Your task to perform on an android device: Open Google Maps Image 0: 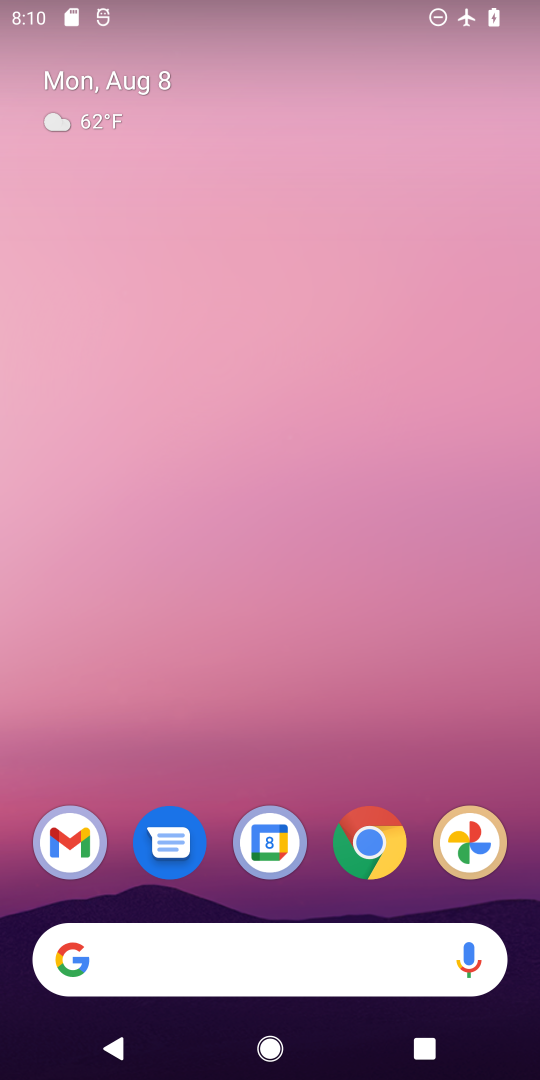
Step 0: drag from (331, 911) to (307, 200)
Your task to perform on an android device: Open Google Maps Image 1: 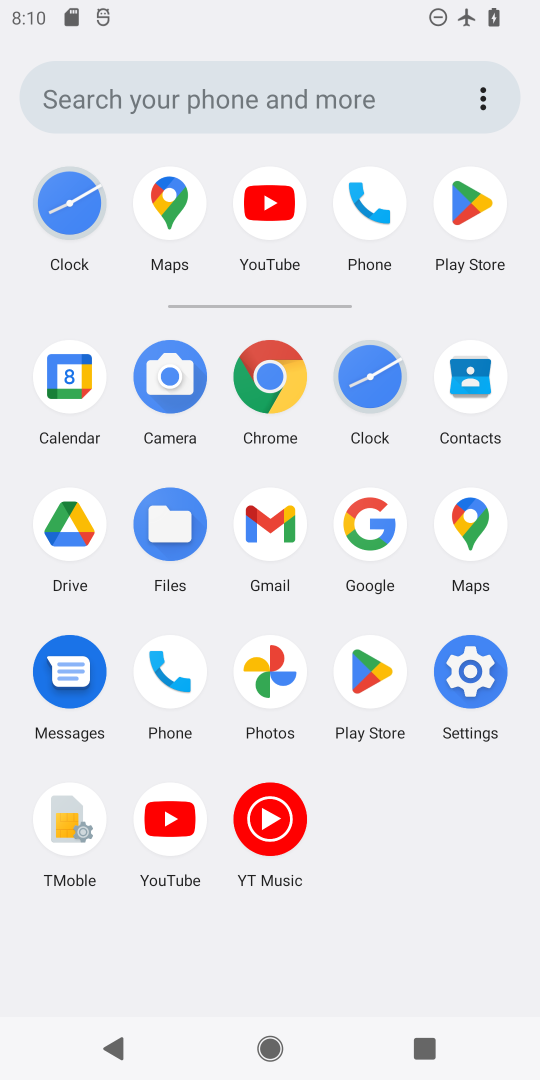
Step 1: click (480, 524)
Your task to perform on an android device: Open Google Maps Image 2: 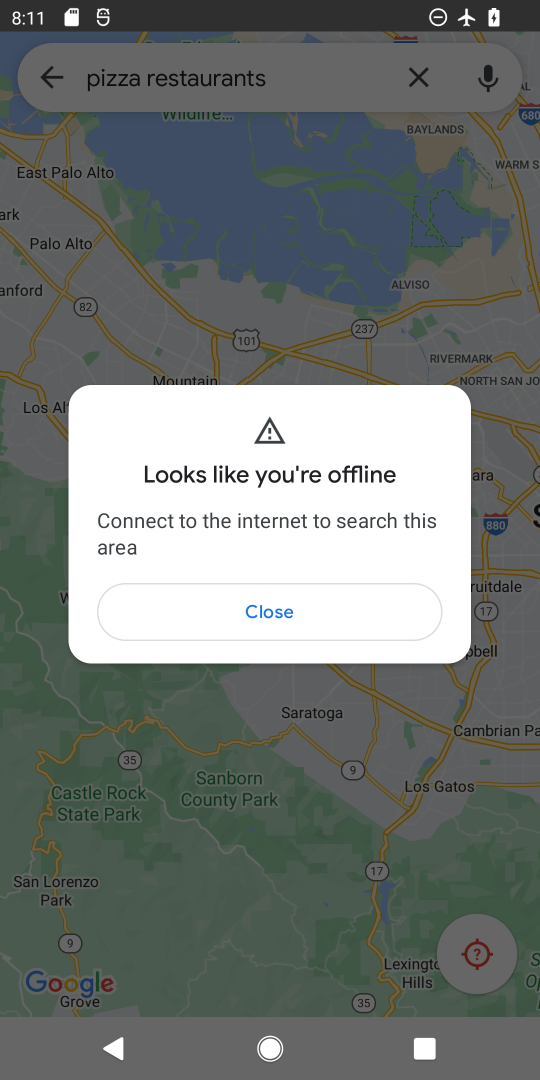
Step 2: click (279, 608)
Your task to perform on an android device: Open Google Maps Image 3: 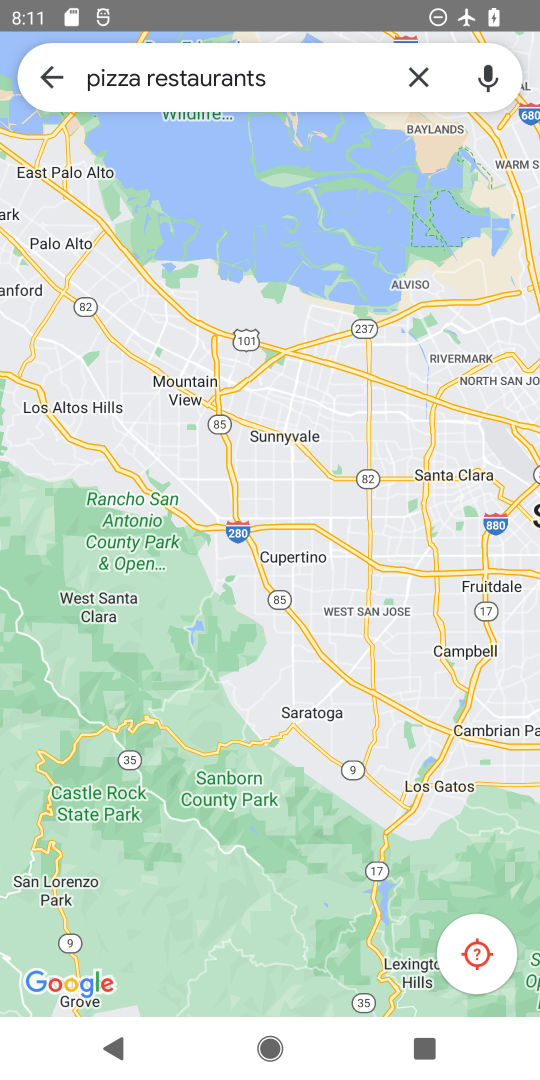
Step 3: task complete